Your task to perform on an android device: move an email to a new category in the gmail app Image 0: 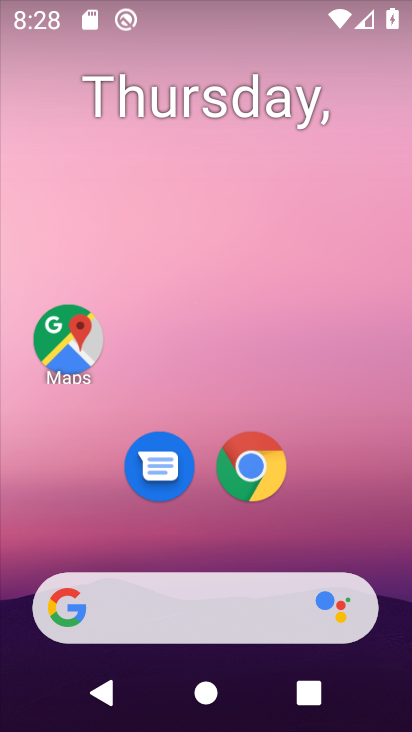
Step 0: drag from (145, 573) to (309, 0)
Your task to perform on an android device: move an email to a new category in the gmail app Image 1: 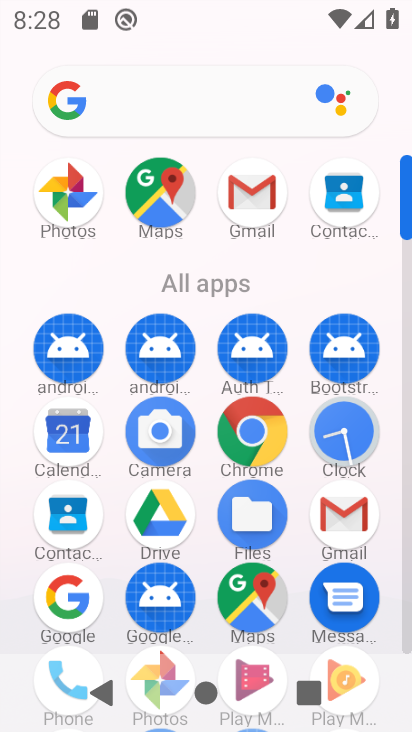
Step 1: click (356, 533)
Your task to perform on an android device: move an email to a new category in the gmail app Image 2: 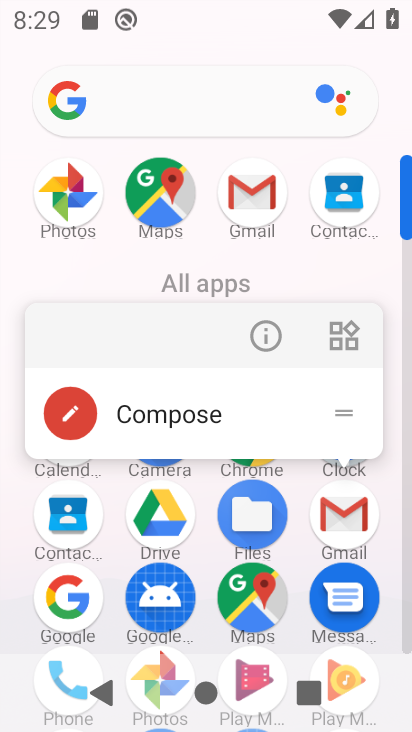
Step 2: click (353, 534)
Your task to perform on an android device: move an email to a new category in the gmail app Image 3: 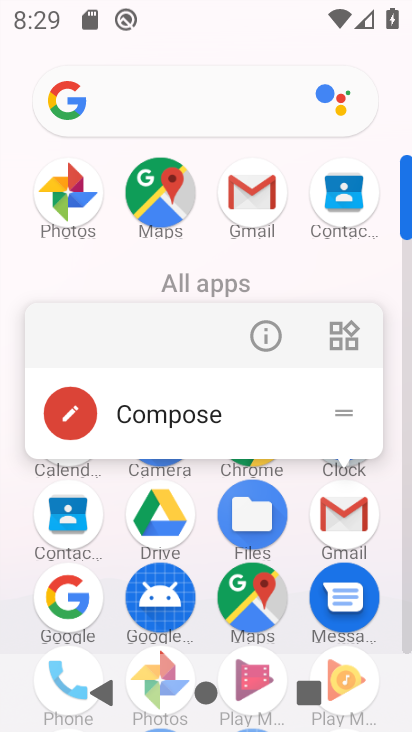
Step 3: click (351, 532)
Your task to perform on an android device: move an email to a new category in the gmail app Image 4: 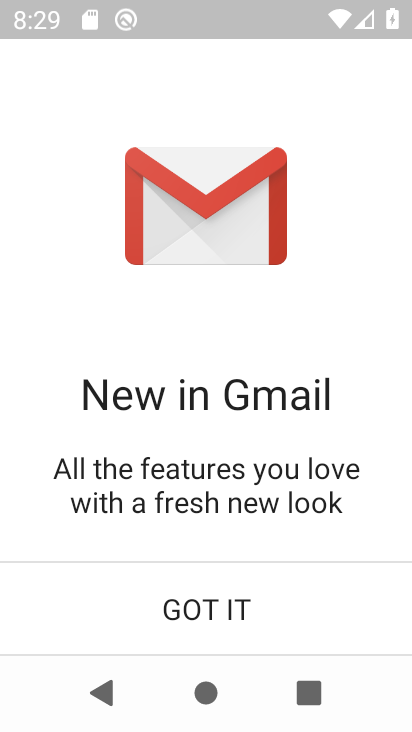
Step 4: click (217, 615)
Your task to perform on an android device: move an email to a new category in the gmail app Image 5: 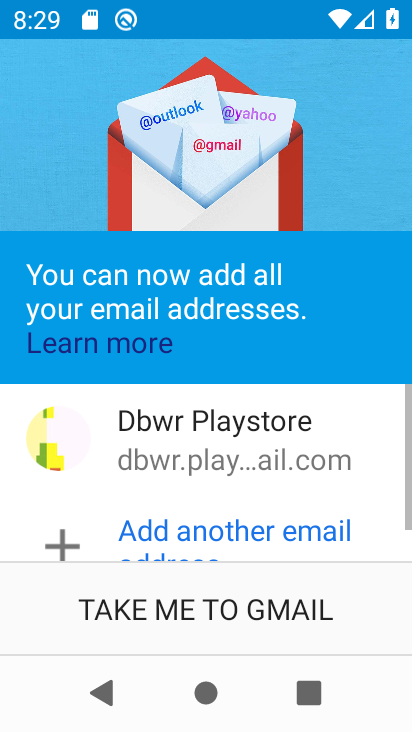
Step 5: click (219, 615)
Your task to perform on an android device: move an email to a new category in the gmail app Image 6: 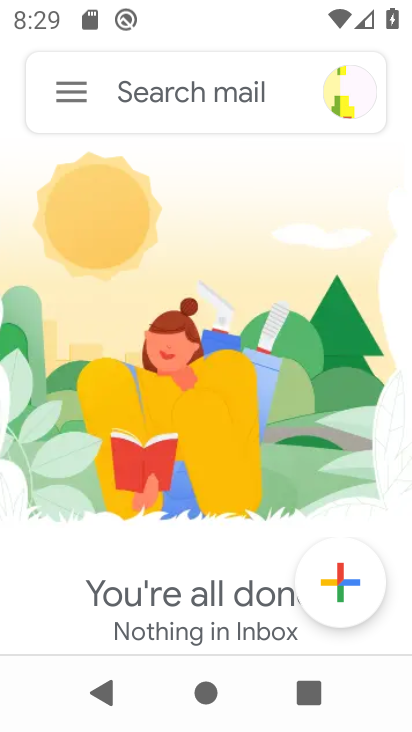
Step 6: click (77, 101)
Your task to perform on an android device: move an email to a new category in the gmail app Image 7: 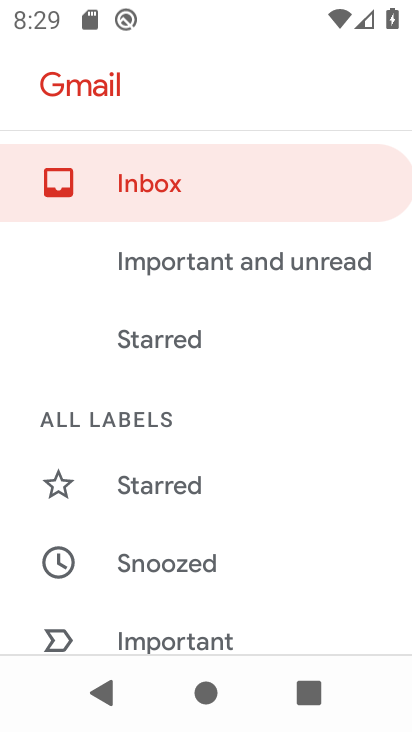
Step 7: drag from (184, 615) to (260, 259)
Your task to perform on an android device: move an email to a new category in the gmail app Image 8: 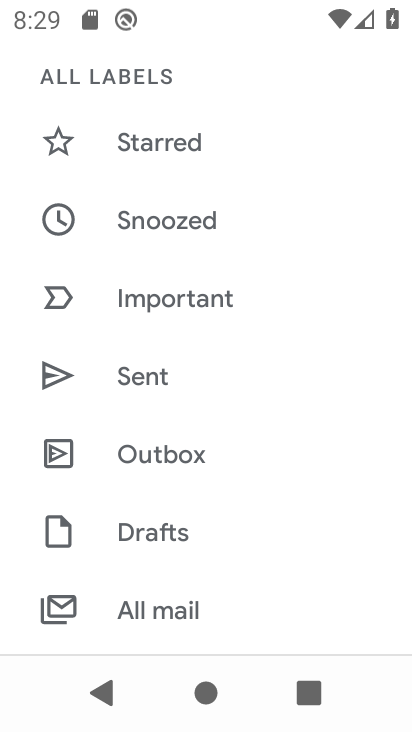
Step 8: click (177, 612)
Your task to perform on an android device: move an email to a new category in the gmail app Image 9: 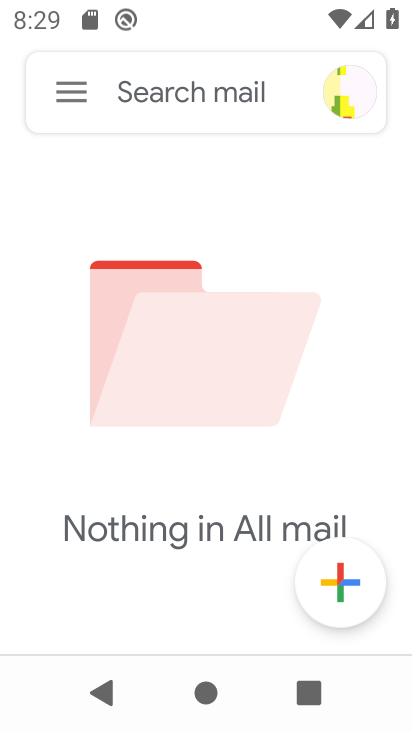
Step 9: task complete